Your task to perform on an android device: What is the news today? Image 0: 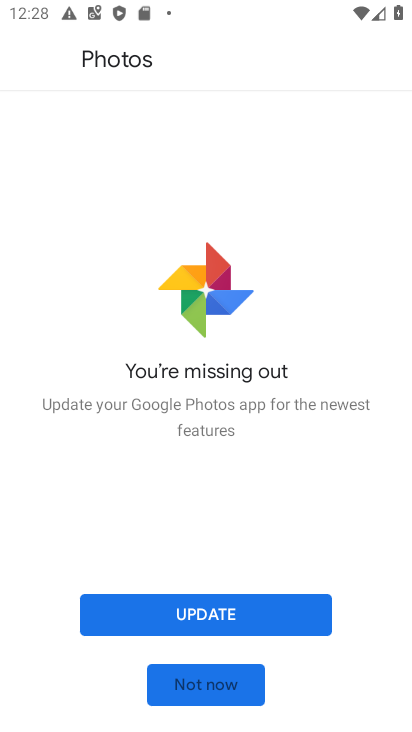
Step 0: press home button
Your task to perform on an android device: What is the news today? Image 1: 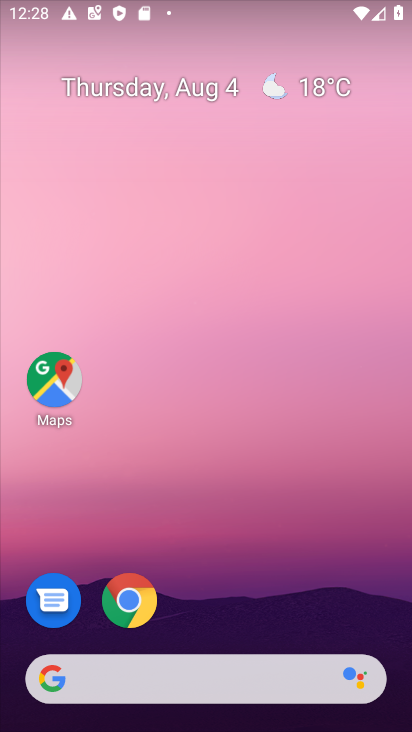
Step 1: click (142, 679)
Your task to perform on an android device: What is the news today? Image 2: 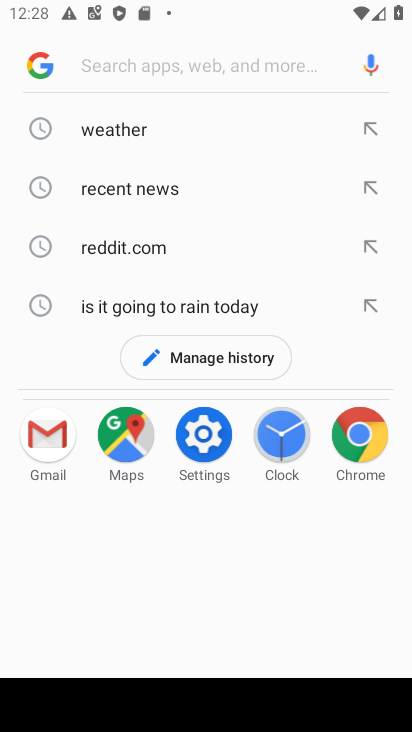
Step 2: click (137, 186)
Your task to perform on an android device: What is the news today? Image 3: 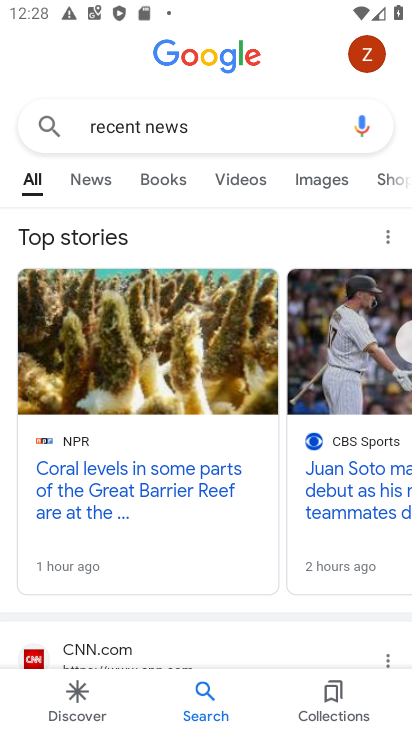
Step 3: click (80, 182)
Your task to perform on an android device: What is the news today? Image 4: 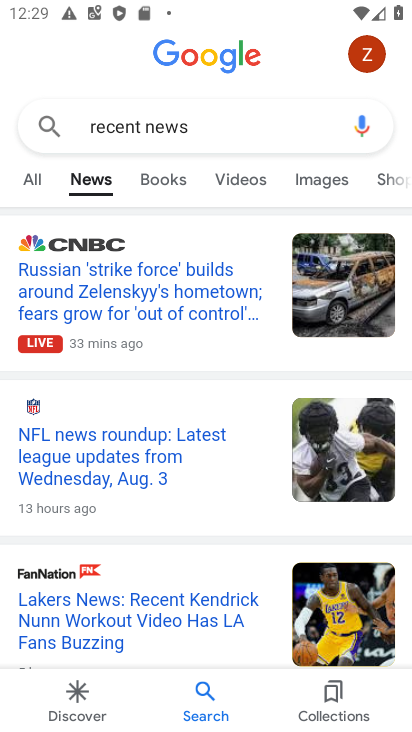
Step 4: task complete